Your task to perform on an android device: toggle show notifications on the lock screen Image 0: 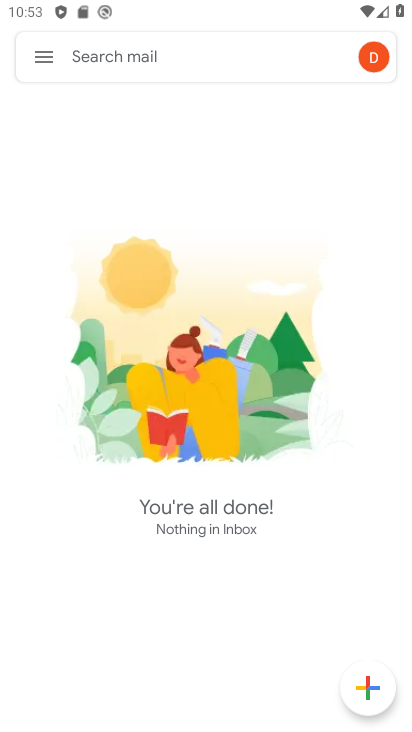
Step 0: press home button
Your task to perform on an android device: toggle show notifications on the lock screen Image 1: 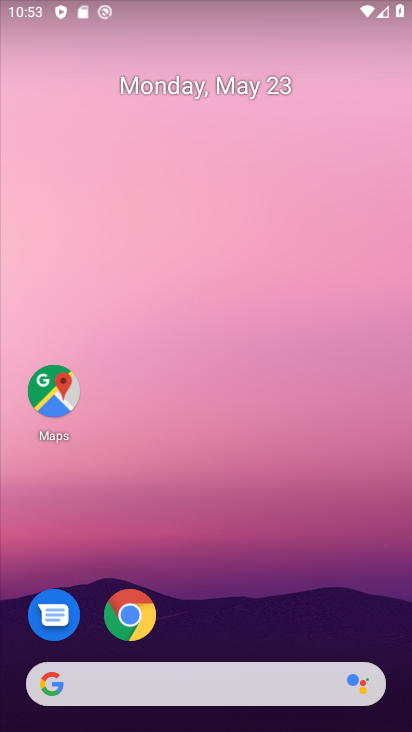
Step 1: drag from (188, 644) to (201, 13)
Your task to perform on an android device: toggle show notifications on the lock screen Image 2: 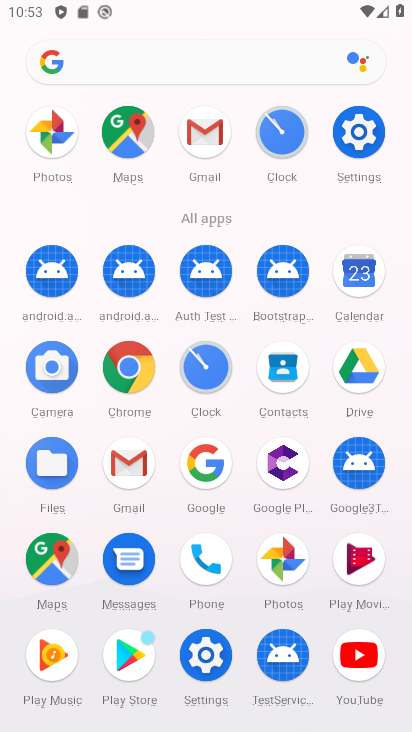
Step 2: click (367, 157)
Your task to perform on an android device: toggle show notifications on the lock screen Image 3: 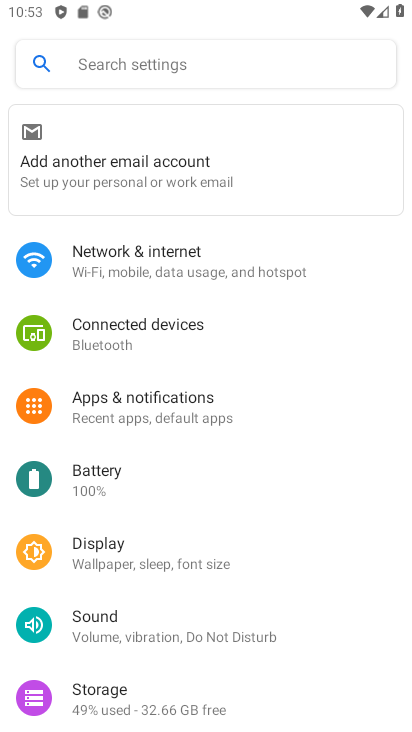
Step 3: click (168, 393)
Your task to perform on an android device: toggle show notifications on the lock screen Image 4: 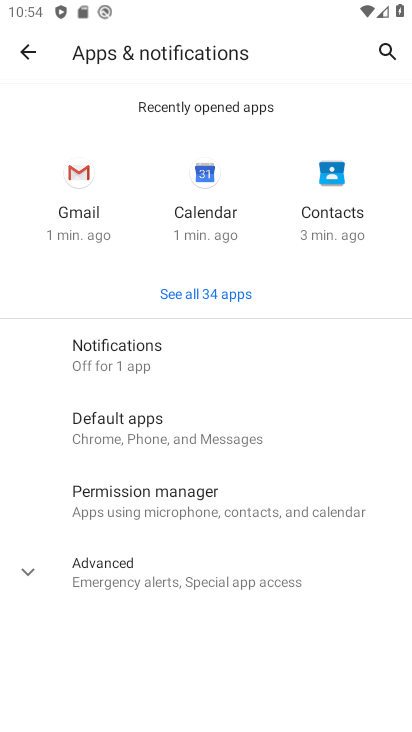
Step 4: click (179, 371)
Your task to perform on an android device: toggle show notifications on the lock screen Image 5: 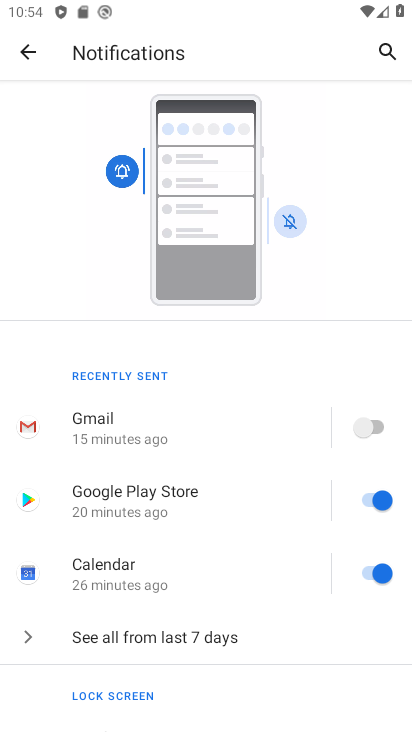
Step 5: drag from (161, 642) to (228, 365)
Your task to perform on an android device: toggle show notifications on the lock screen Image 6: 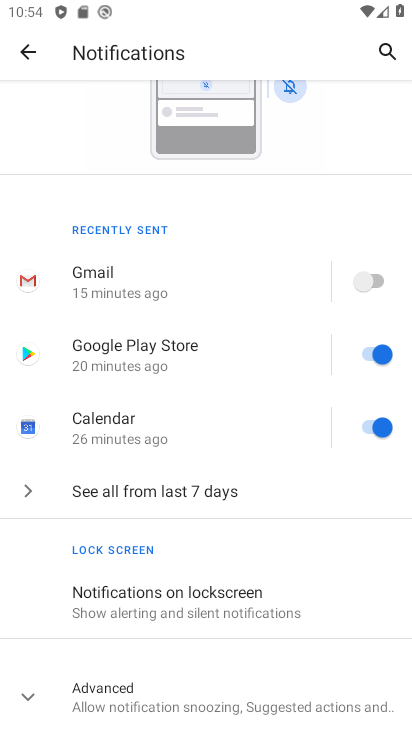
Step 6: click (216, 594)
Your task to perform on an android device: toggle show notifications on the lock screen Image 7: 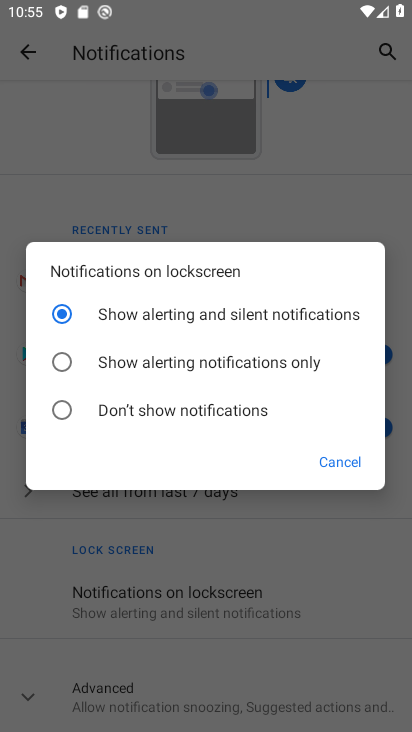
Step 7: task complete